Your task to perform on an android device: Go to settings Image 0: 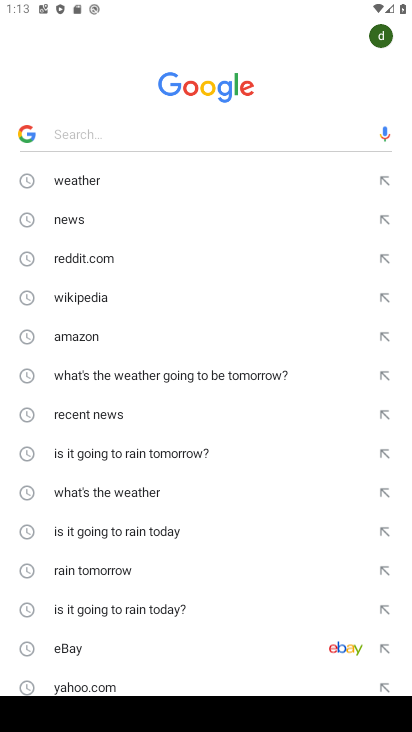
Step 0: press home button
Your task to perform on an android device: Go to settings Image 1: 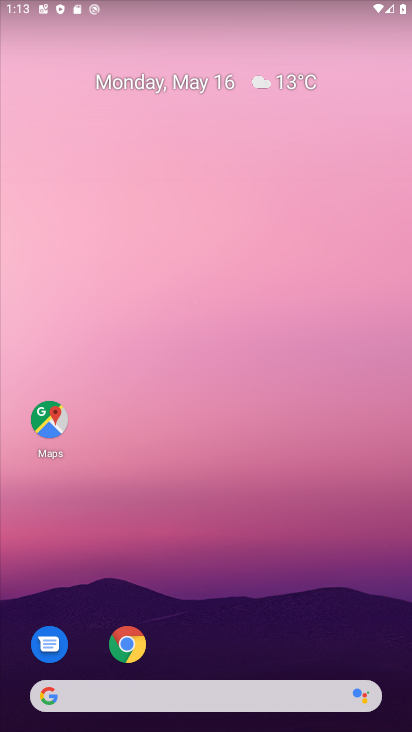
Step 1: drag from (218, 693) to (300, 92)
Your task to perform on an android device: Go to settings Image 2: 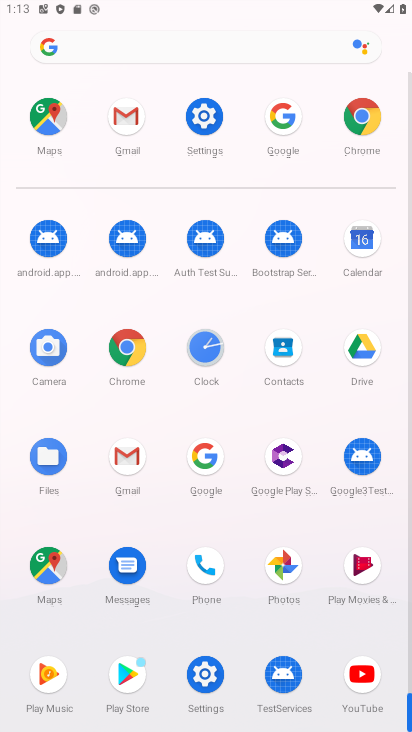
Step 2: click (212, 136)
Your task to perform on an android device: Go to settings Image 3: 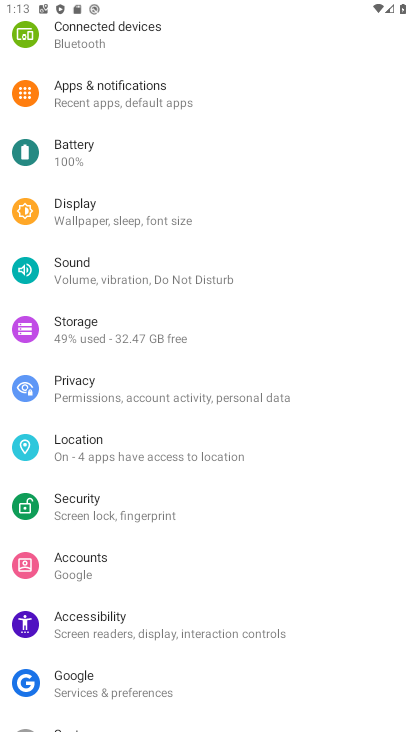
Step 3: task complete